Your task to perform on an android device: Go to calendar. Show me events next week Image 0: 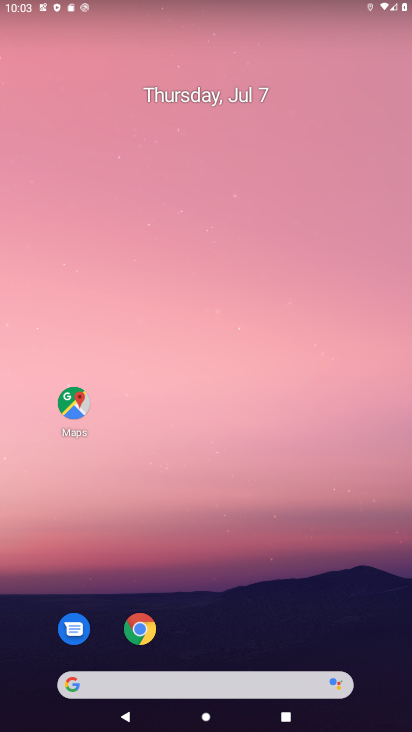
Step 0: drag from (355, 616) to (342, 88)
Your task to perform on an android device: Go to calendar. Show me events next week Image 1: 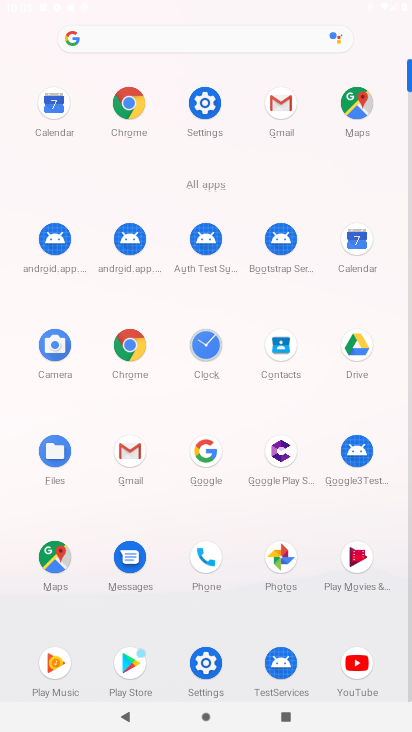
Step 1: click (359, 237)
Your task to perform on an android device: Go to calendar. Show me events next week Image 2: 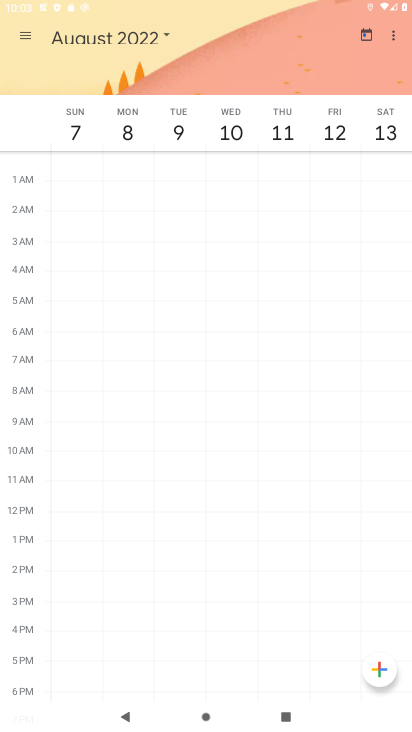
Step 2: click (139, 43)
Your task to perform on an android device: Go to calendar. Show me events next week Image 3: 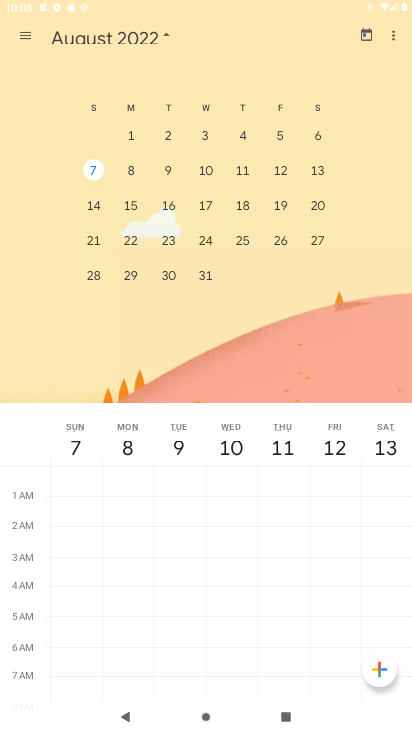
Step 3: drag from (69, 251) to (329, 228)
Your task to perform on an android device: Go to calendar. Show me events next week Image 4: 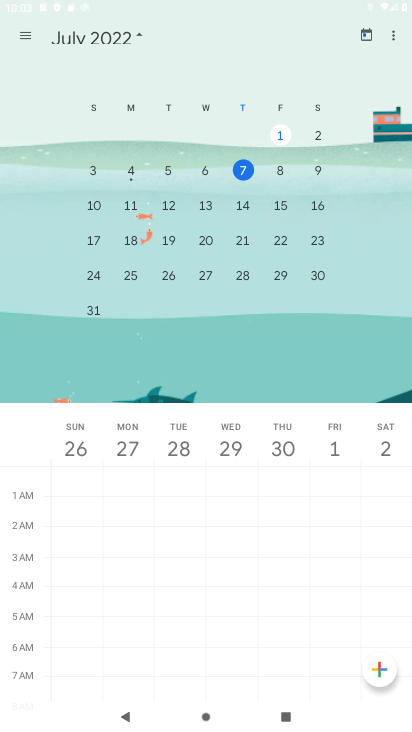
Step 4: click (91, 199)
Your task to perform on an android device: Go to calendar. Show me events next week Image 5: 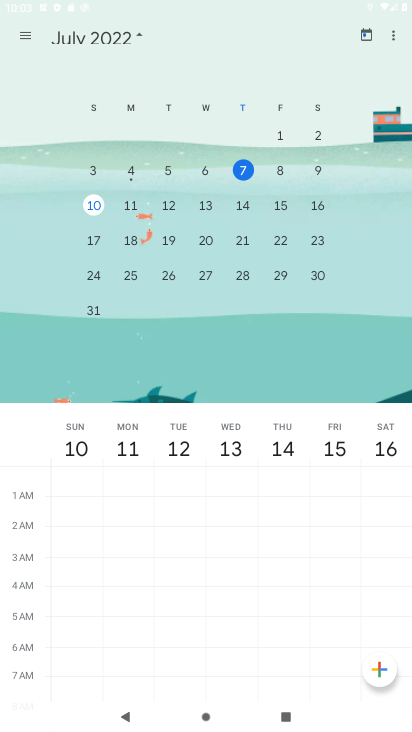
Step 5: task complete